Your task to perform on an android device: turn notification dots on Image 0: 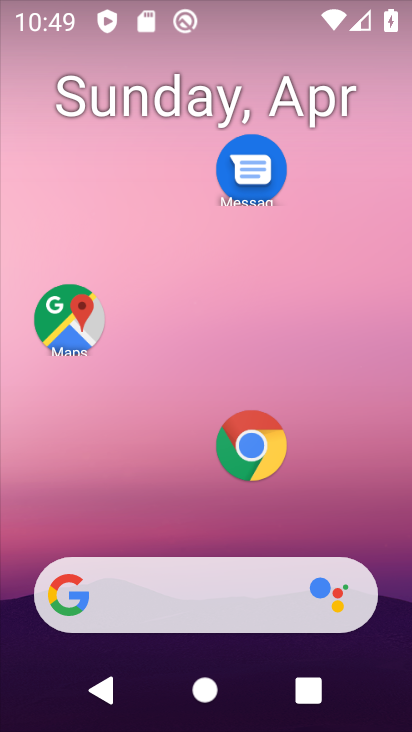
Step 0: drag from (186, 569) to (357, 90)
Your task to perform on an android device: turn notification dots on Image 1: 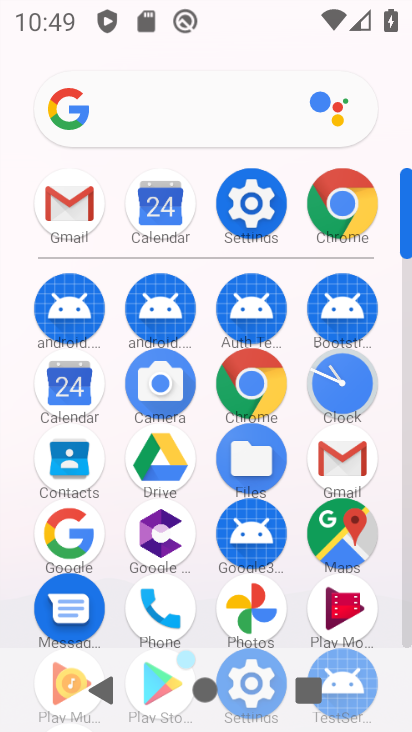
Step 1: click (270, 215)
Your task to perform on an android device: turn notification dots on Image 2: 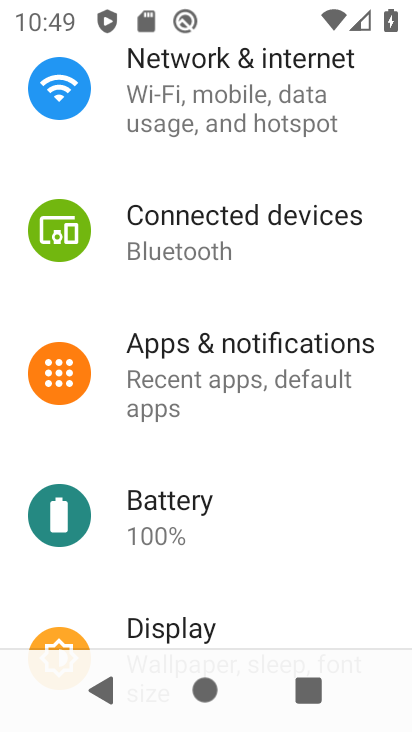
Step 2: click (238, 347)
Your task to perform on an android device: turn notification dots on Image 3: 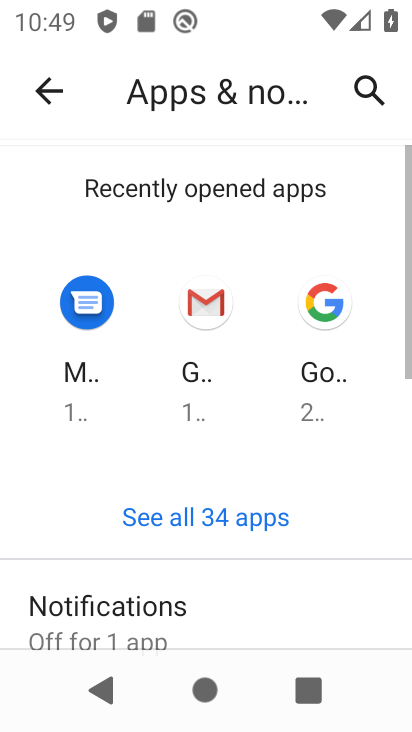
Step 3: click (163, 625)
Your task to perform on an android device: turn notification dots on Image 4: 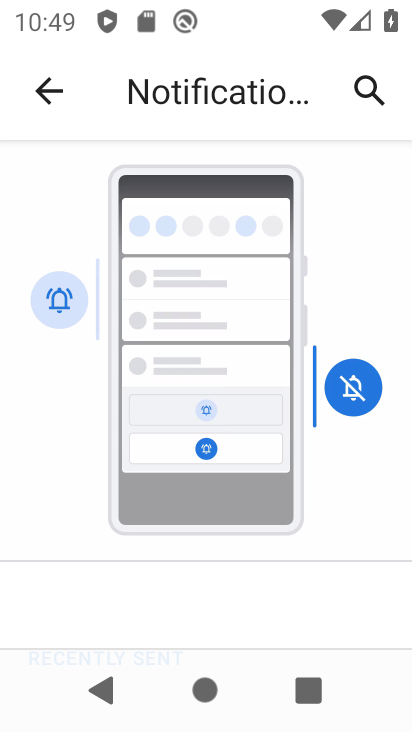
Step 4: drag from (178, 621) to (402, 122)
Your task to perform on an android device: turn notification dots on Image 5: 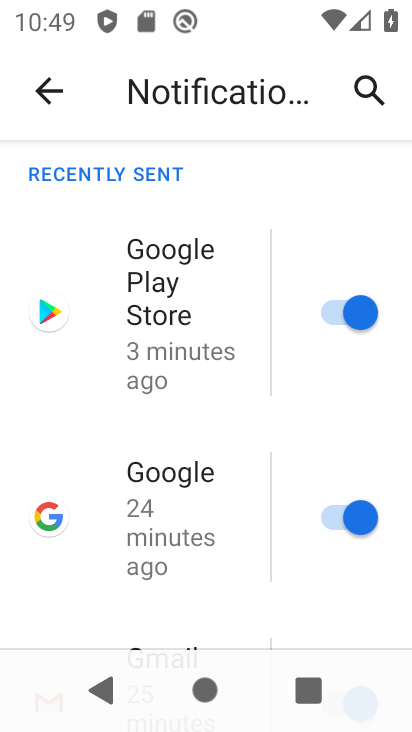
Step 5: drag from (219, 605) to (397, 93)
Your task to perform on an android device: turn notification dots on Image 6: 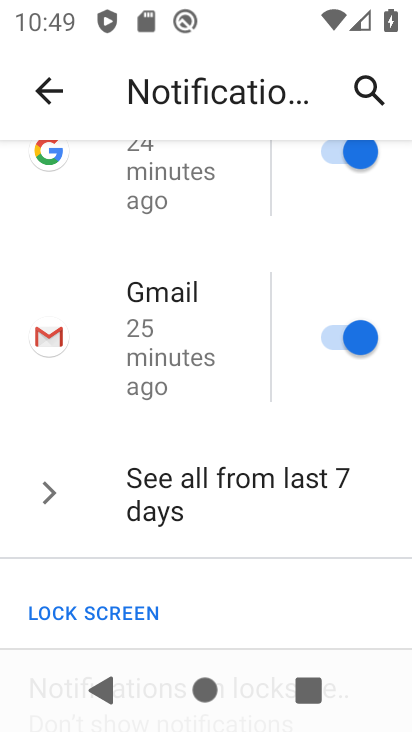
Step 6: drag from (172, 611) to (353, 68)
Your task to perform on an android device: turn notification dots on Image 7: 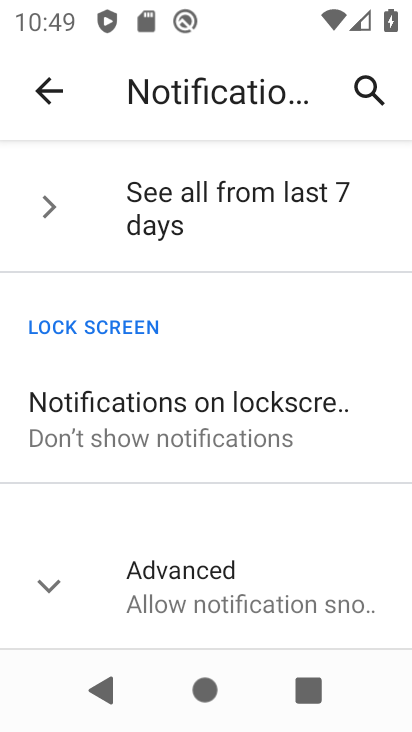
Step 7: click (102, 592)
Your task to perform on an android device: turn notification dots on Image 8: 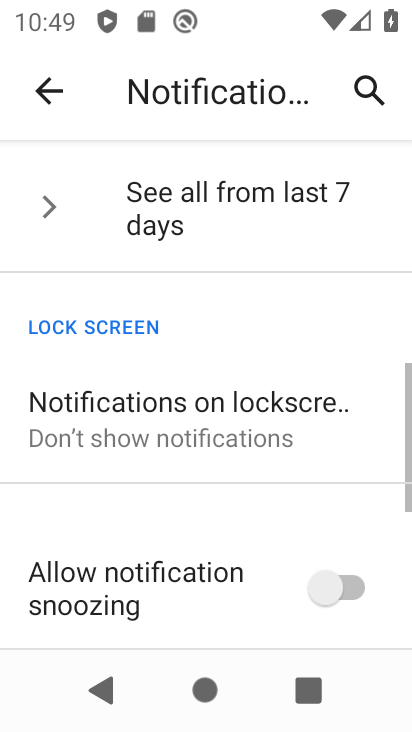
Step 8: task complete